Your task to perform on an android device: Open Amazon Image 0: 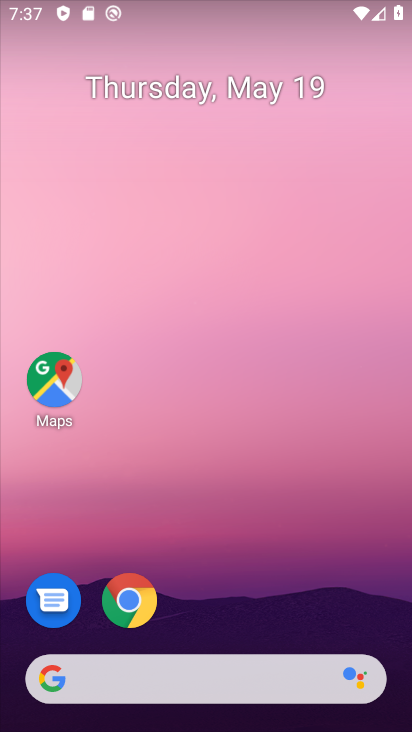
Step 0: click (137, 614)
Your task to perform on an android device: Open Amazon Image 1: 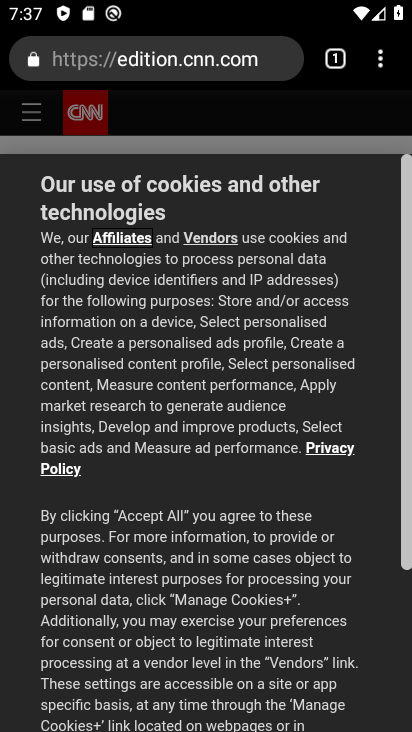
Step 1: click (120, 58)
Your task to perform on an android device: Open Amazon Image 2: 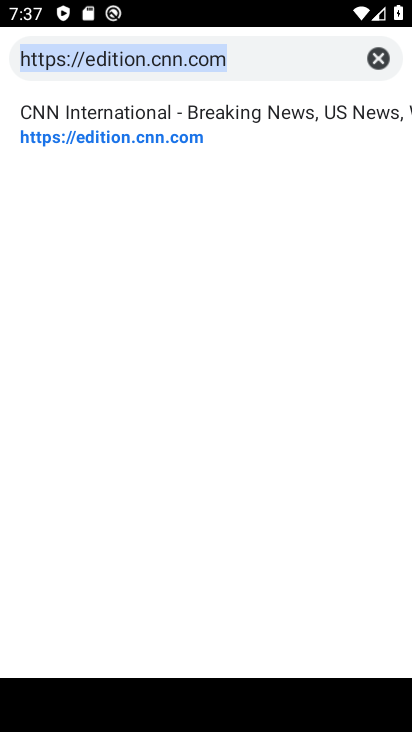
Step 2: click (380, 65)
Your task to perform on an android device: Open Amazon Image 3: 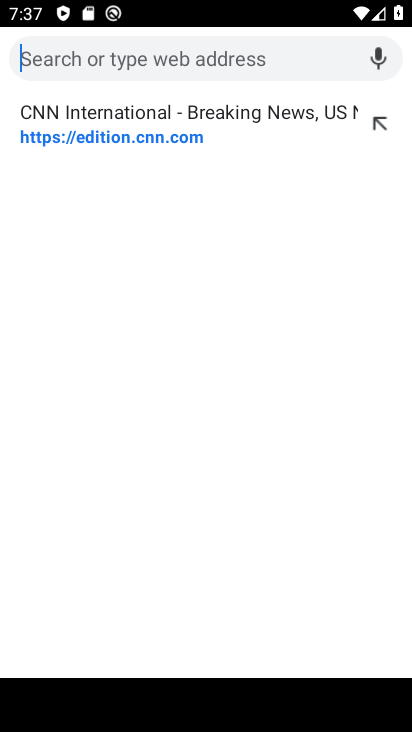
Step 3: type "amazon"
Your task to perform on an android device: Open Amazon Image 4: 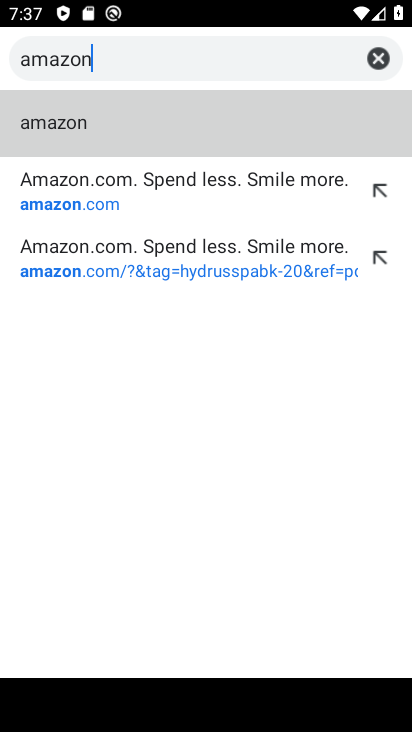
Step 4: click (64, 188)
Your task to perform on an android device: Open Amazon Image 5: 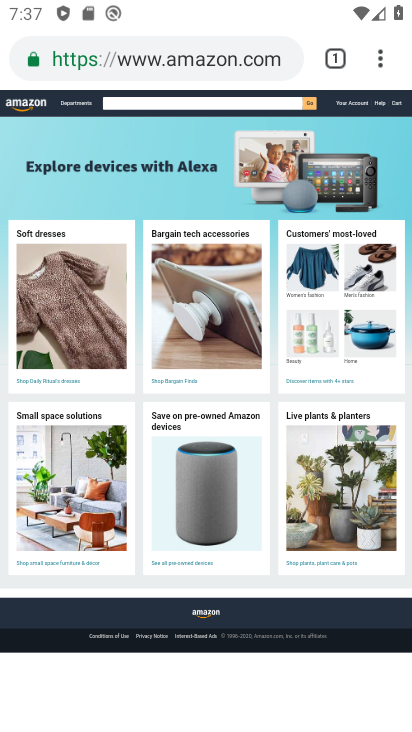
Step 5: task complete